Your task to perform on an android device: change notifications settings Image 0: 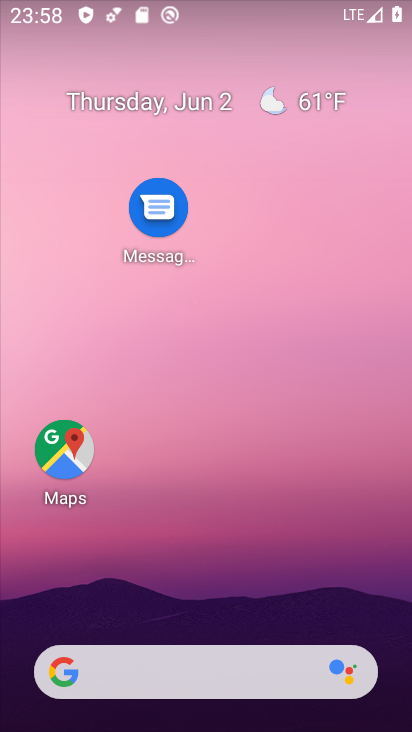
Step 0: drag from (222, 621) to (241, 3)
Your task to perform on an android device: change notifications settings Image 1: 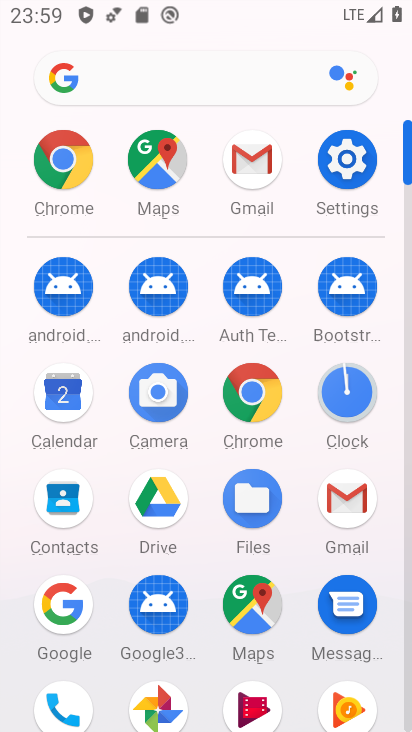
Step 1: click (355, 201)
Your task to perform on an android device: change notifications settings Image 2: 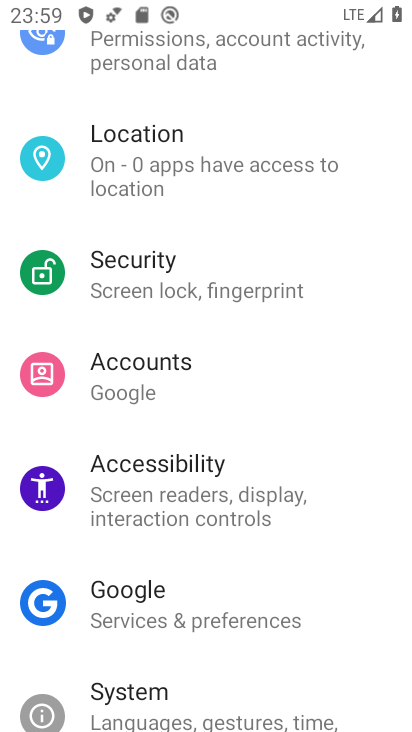
Step 2: drag from (256, 117) to (174, 678)
Your task to perform on an android device: change notifications settings Image 3: 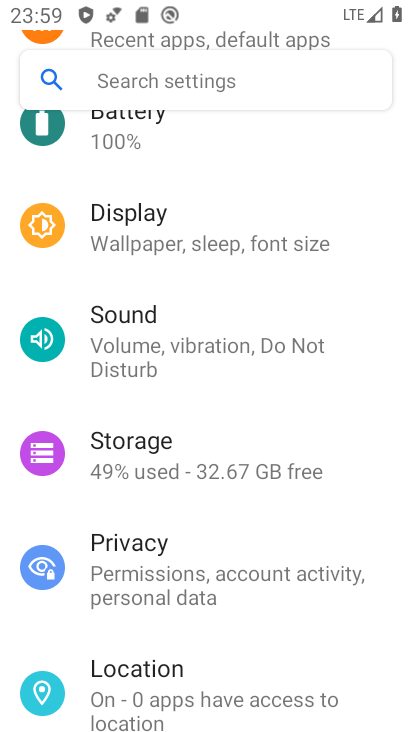
Step 3: drag from (167, 264) to (116, 714)
Your task to perform on an android device: change notifications settings Image 4: 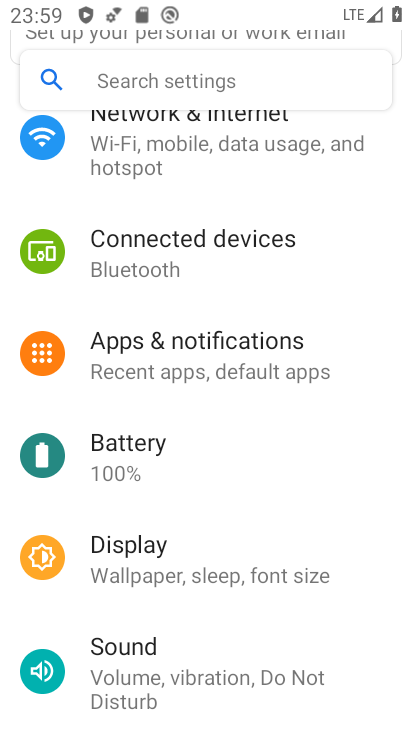
Step 4: click (120, 385)
Your task to perform on an android device: change notifications settings Image 5: 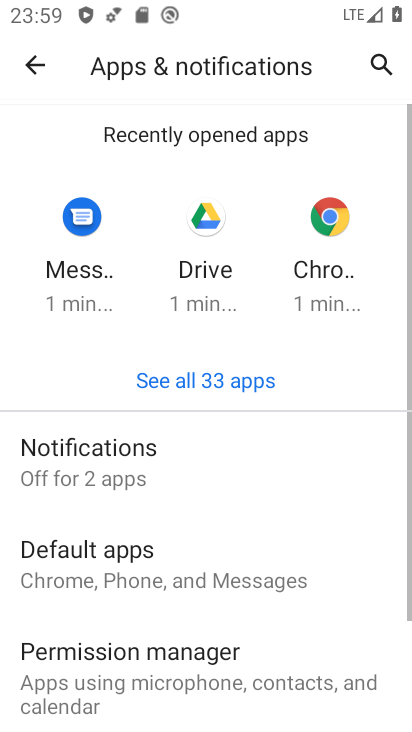
Step 5: click (143, 479)
Your task to perform on an android device: change notifications settings Image 6: 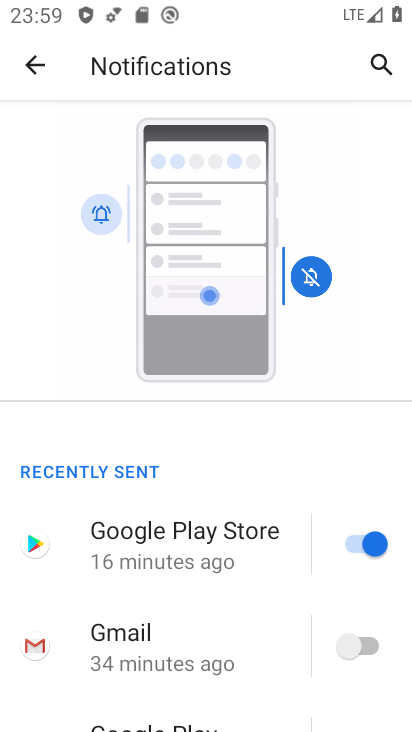
Step 6: task complete